Your task to perform on an android device: toggle priority inbox in the gmail app Image 0: 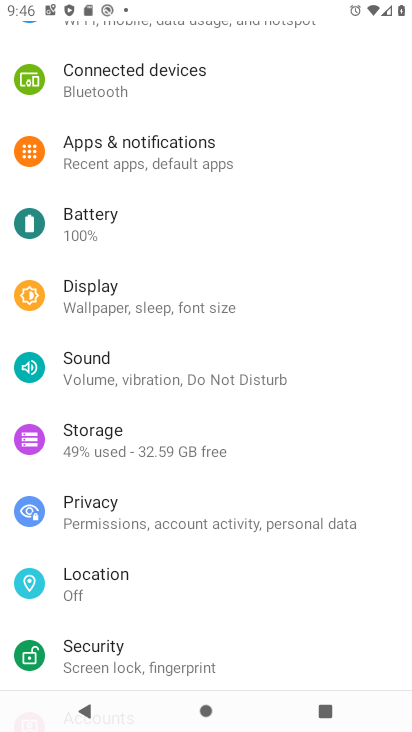
Step 0: press home button
Your task to perform on an android device: toggle priority inbox in the gmail app Image 1: 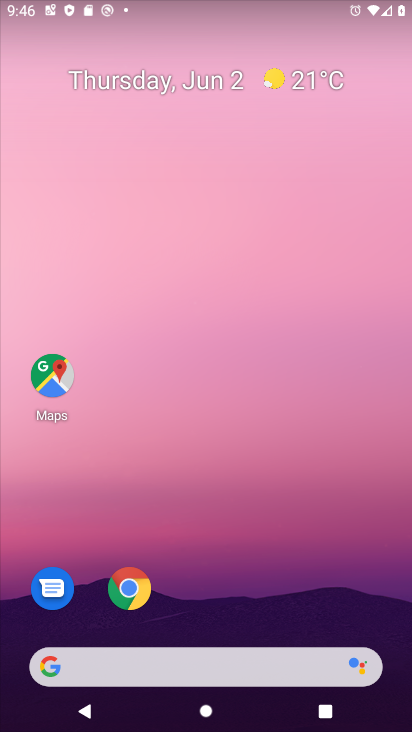
Step 1: drag from (207, 662) to (226, 180)
Your task to perform on an android device: toggle priority inbox in the gmail app Image 2: 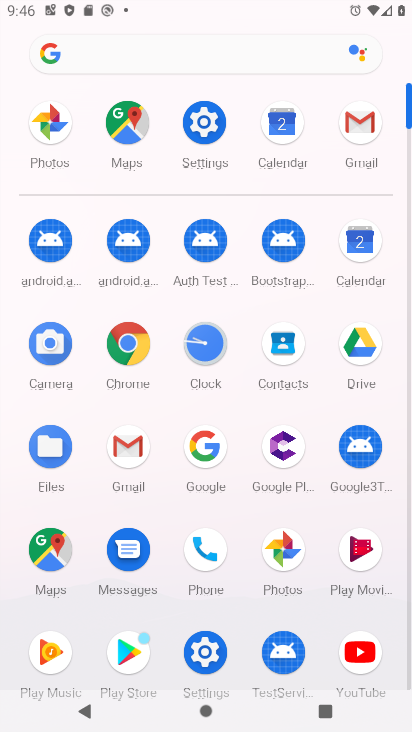
Step 2: click (135, 449)
Your task to perform on an android device: toggle priority inbox in the gmail app Image 3: 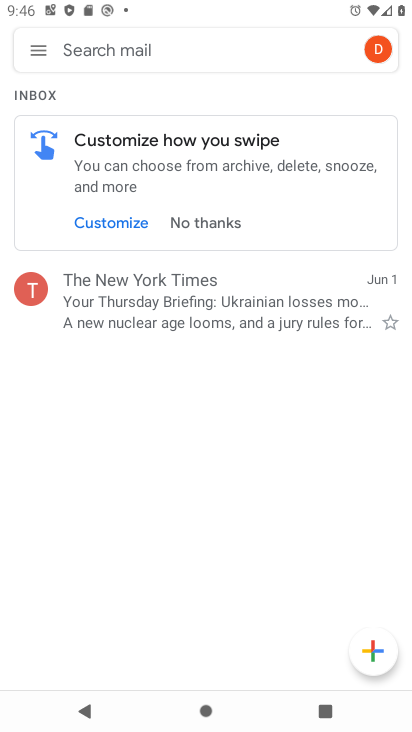
Step 3: click (36, 53)
Your task to perform on an android device: toggle priority inbox in the gmail app Image 4: 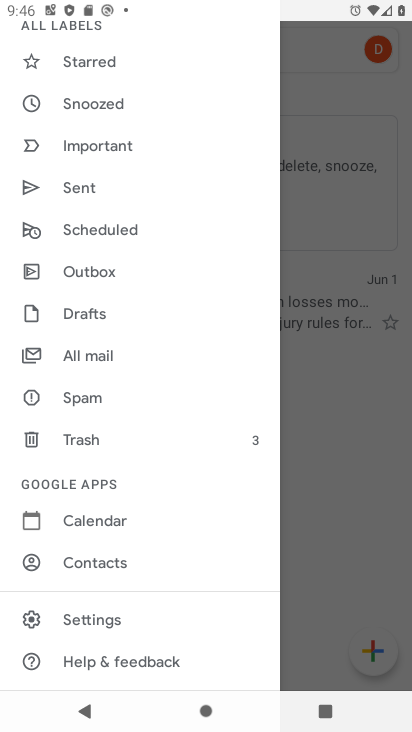
Step 4: click (110, 617)
Your task to perform on an android device: toggle priority inbox in the gmail app Image 5: 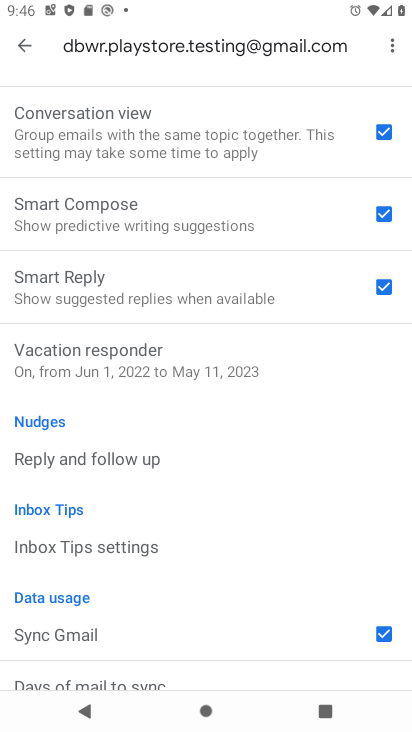
Step 5: drag from (142, 197) to (89, 694)
Your task to perform on an android device: toggle priority inbox in the gmail app Image 6: 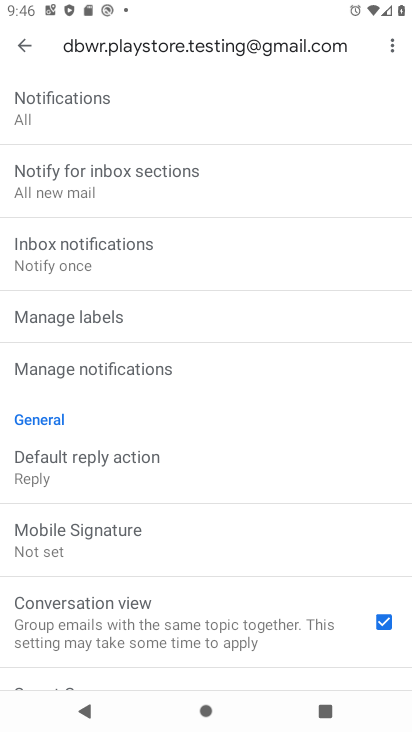
Step 6: drag from (125, 167) to (97, 651)
Your task to perform on an android device: toggle priority inbox in the gmail app Image 7: 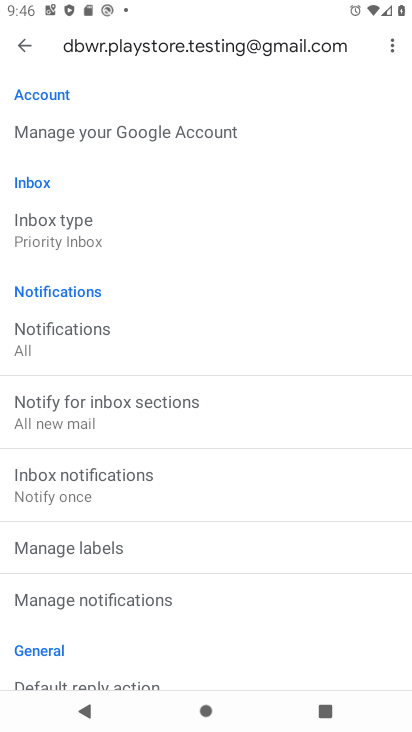
Step 7: click (74, 216)
Your task to perform on an android device: toggle priority inbox in the gmail app Image 8: 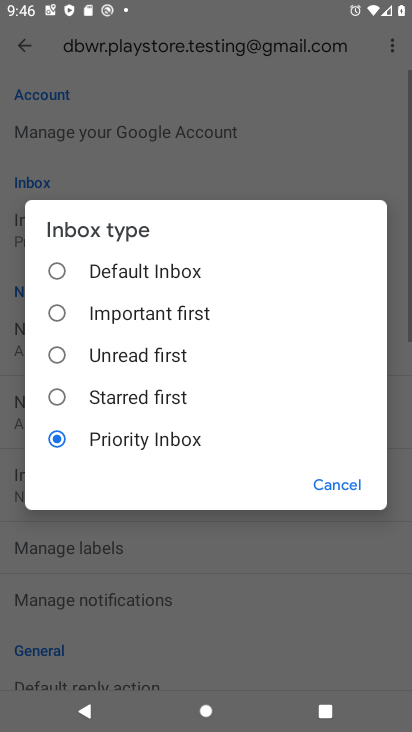
Step 8: click (156, 261)
Your task to perform on an android device: toggle priority inbox in the gmail app Image 9: 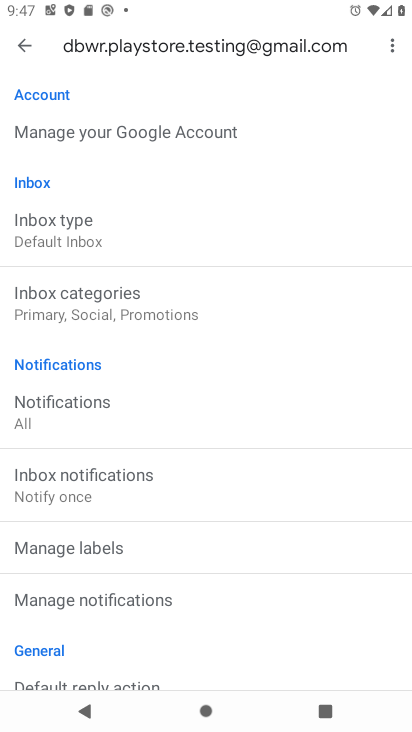
Step 9: task complete